Your task to perform on an android device: choose inbox layout in the gmail app Image 0: 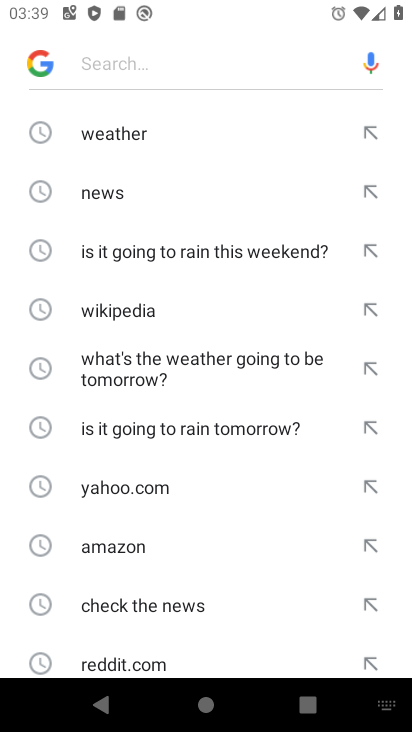
Step 0: press home button
Your task to perform on an android device: choose inbox layout in the gmail app Image 1: 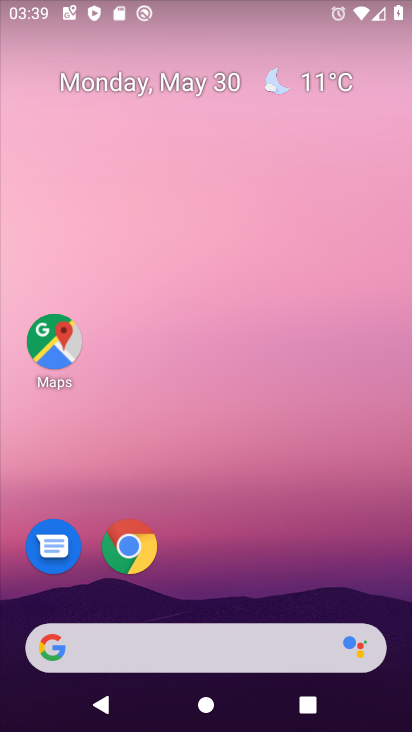
Step 1: drag from (212, 607) to (224, 23)
Your task to perform on an android device: choose inbox layout in the gmail app Image 2: 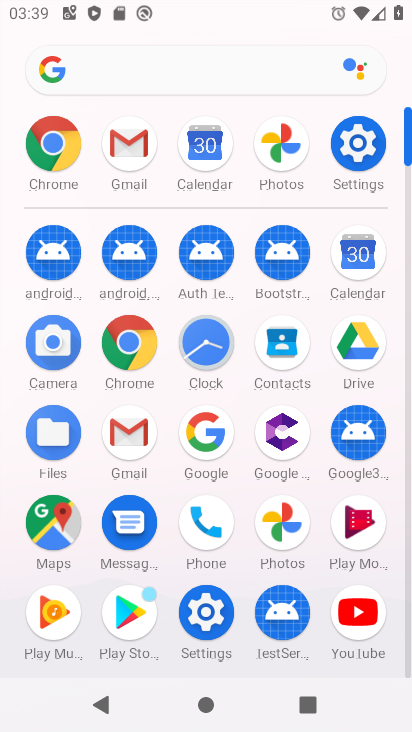
Step 2: click (126, 426)
Your task to perform on an android device: choose inbox layout in the gmail app Image 3: 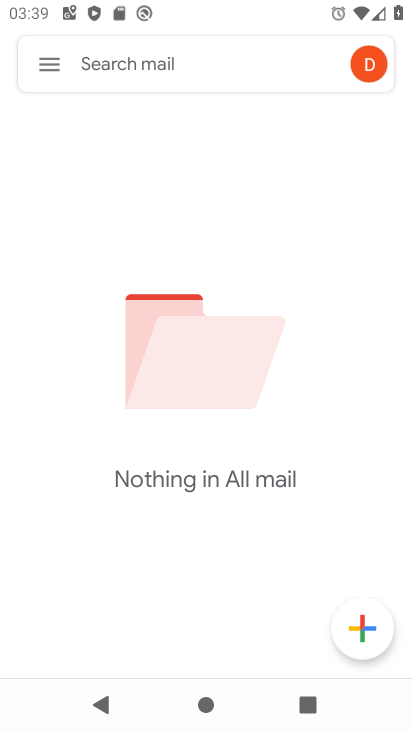
Step 3: click (49, 60)
Your task to perform on an android device: choose inbox layout in the gmail app Image 4: 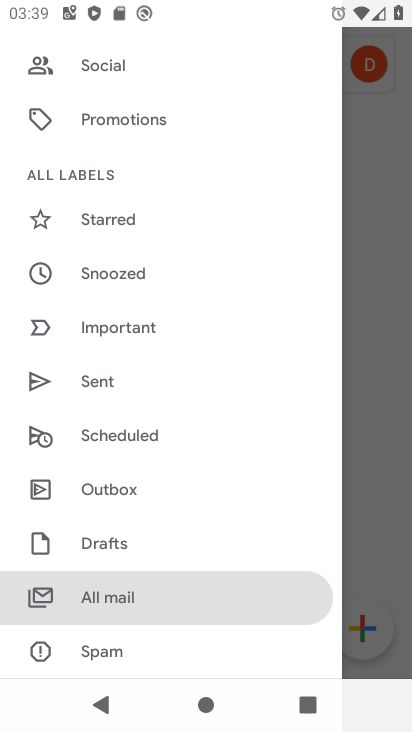
Step 4: drag from (149, 600) to (160, 373)
Your task to perform on an android device: choose inbox layout in the gmail app Image 5: 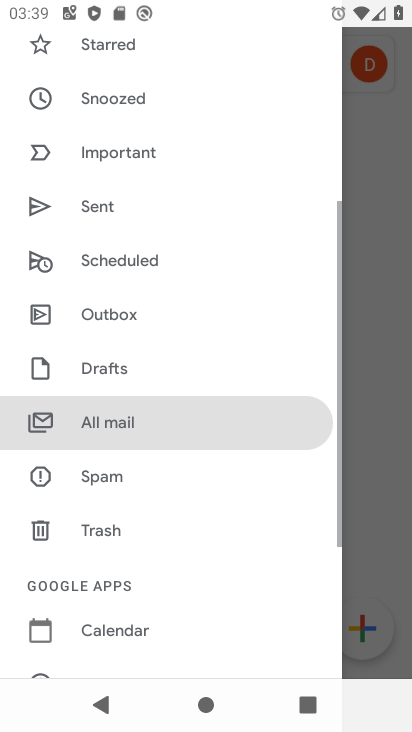
Step 5: click (167, 320)
Your task to perform on an android device: choose inbox layout in the gmail app Image 6: 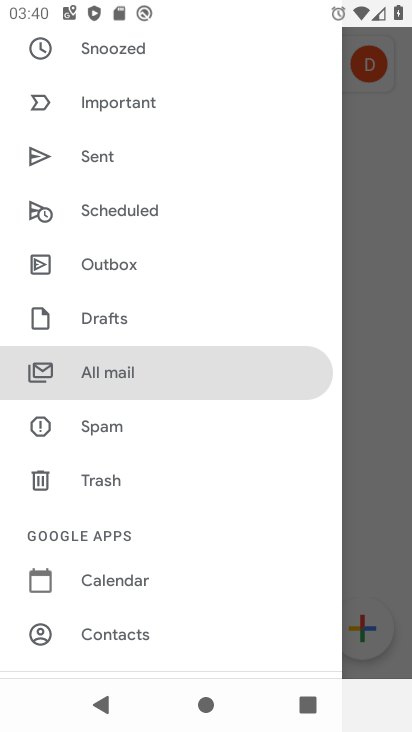
Step 6: drag from (162, 598) to (169, 174)
Your task to perform on an android device: choose inbox layout in the gmail app Image 7: 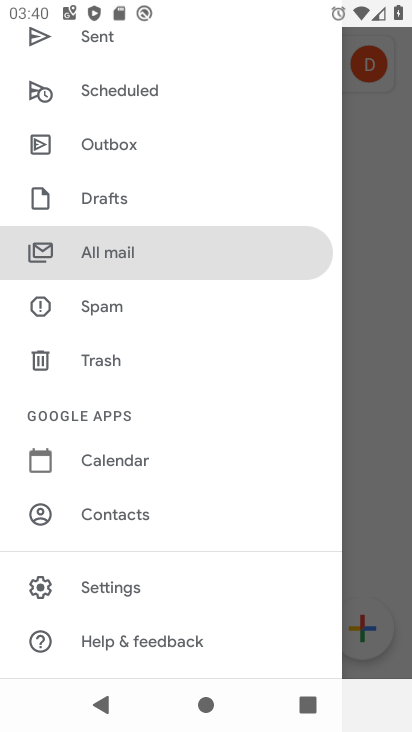
Step 7: click (147, 584)
Your task to perform on an android device: choose inbox layout in the gmail app Image 8: 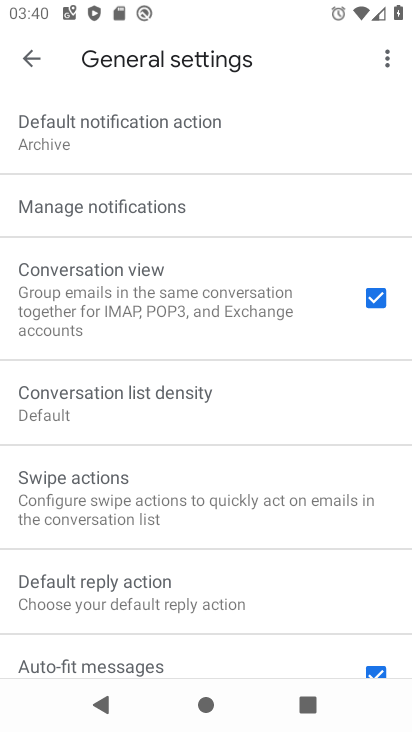
Step 8: click (33, 56)
Your task to perform on an android device: choose inbox layout in the gmail app Image 9: 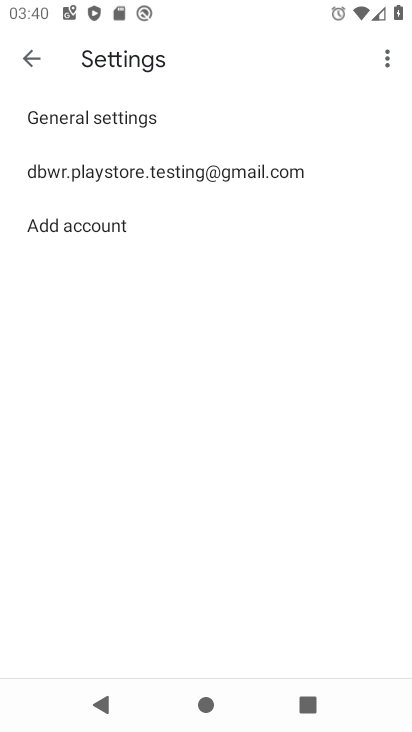
Step 9: click (185, 170)
Your task to perform on an android device: choose inbox layout in the gmail app Image 10: 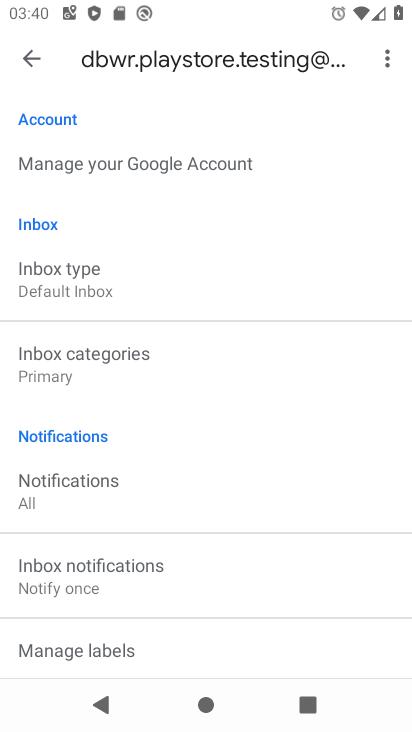
Step 10: click (130, 278)
Your task to perform on an android device: choose inbox layout in the gmail app Image 11: 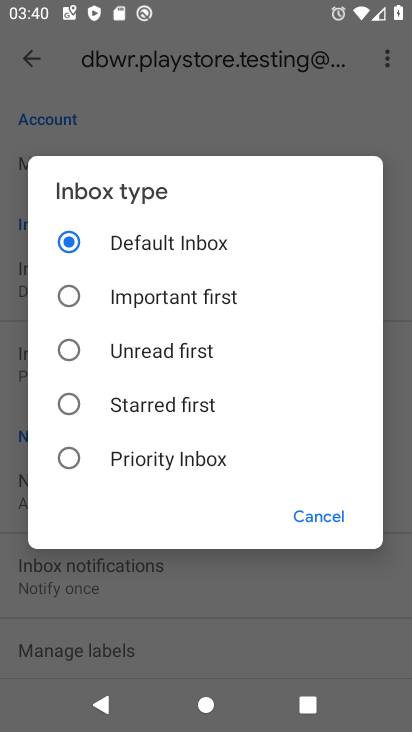
Step 11: click (75, 461)
Your task to perform on an android device: choose inbox layout in the gmail app Image 12: 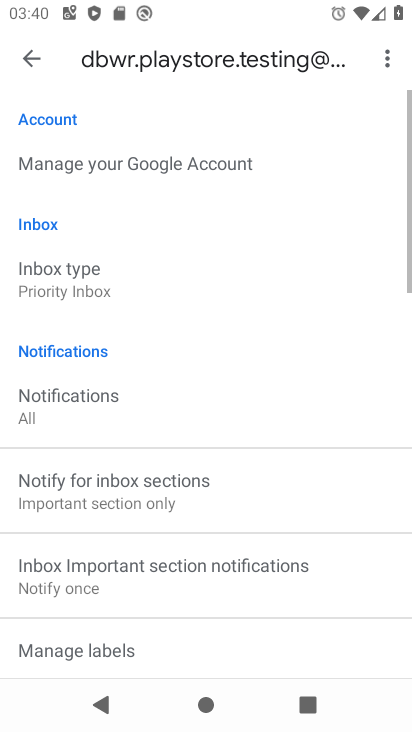
Step 12: task complete